Your task to perform on an android device: Search for Mexican restaurants on Maps Image 0: 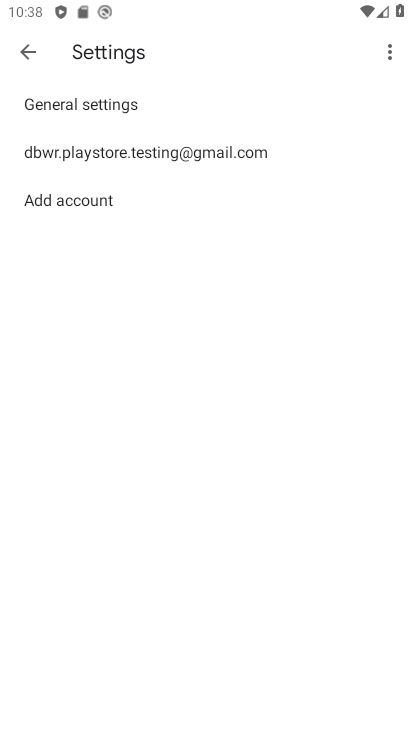
Step 0: press home button
Your task to perform on an android device: Search for Mexican restaurants on Maps Image 1: 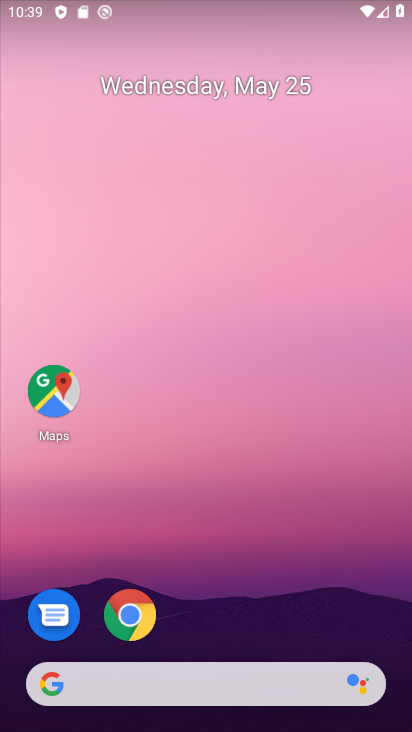
Step 1: click (56, 410)
Your task to perform on an android device: Search for Mexican restaurants on Maps Image 2: 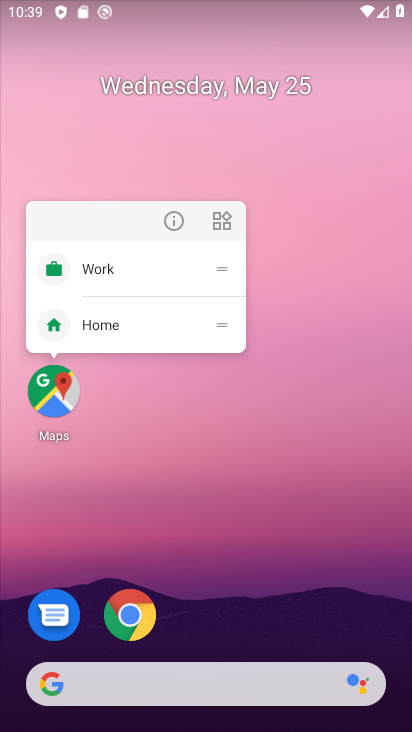
Step 2: click (64, 394)
Your task to perform on an android device: Search for Mexican restaurants on Maps Image 3: 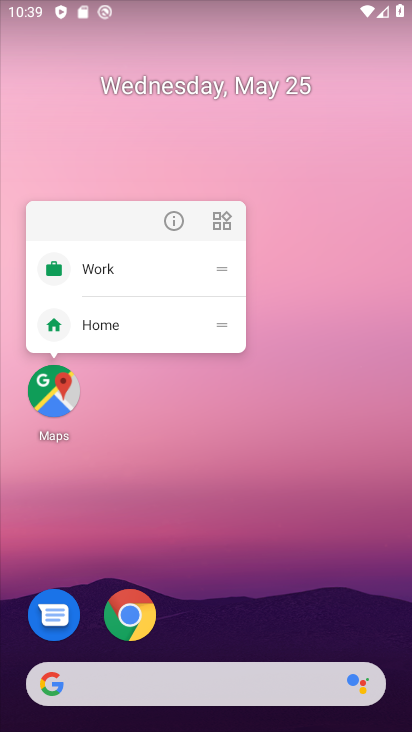
Step 3: click (64, 394)
Your task to perform on an android device: Search for Mexican restaurants on Maps Image 4: 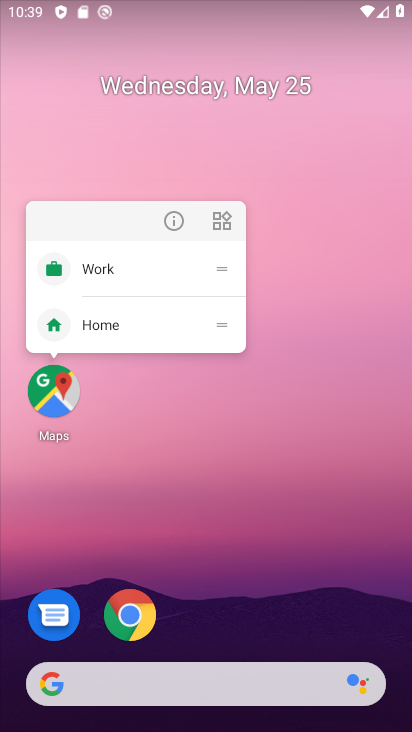
Step 4: click (64, 394)
Your task to perform on an android device: Search for Mexican restaurants on Maps Image 5: 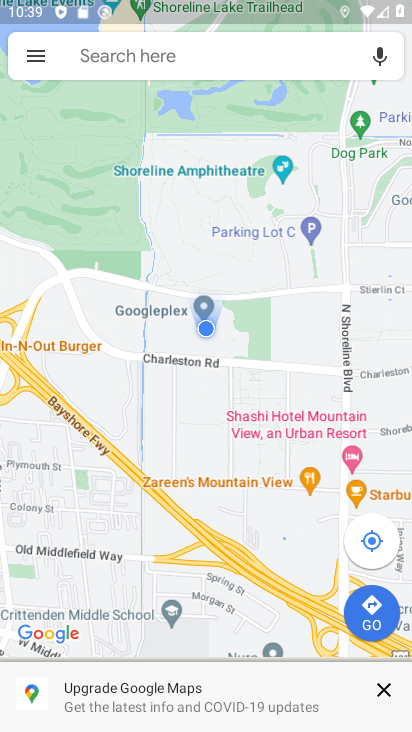
Step 5: click (198, 55)
Your task to perform on an android device: Search for Mexican restaurants on Maps Image 6: 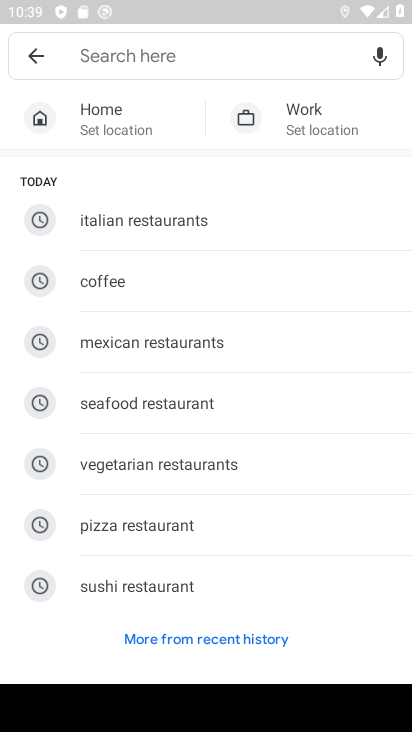
Step 6: click (169, 340)
Your task to perform on an android device: Search for Mexican restaurants on Maps Image 7: 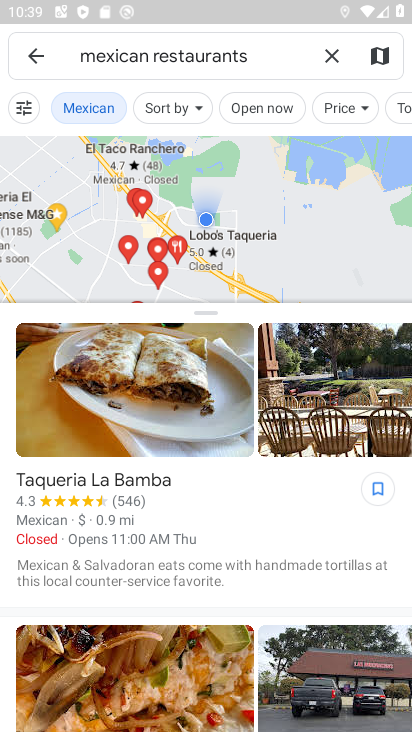
Step 7: task complete